Your task to perform on an android device: turn off smart reply in the gmail app Image 0: 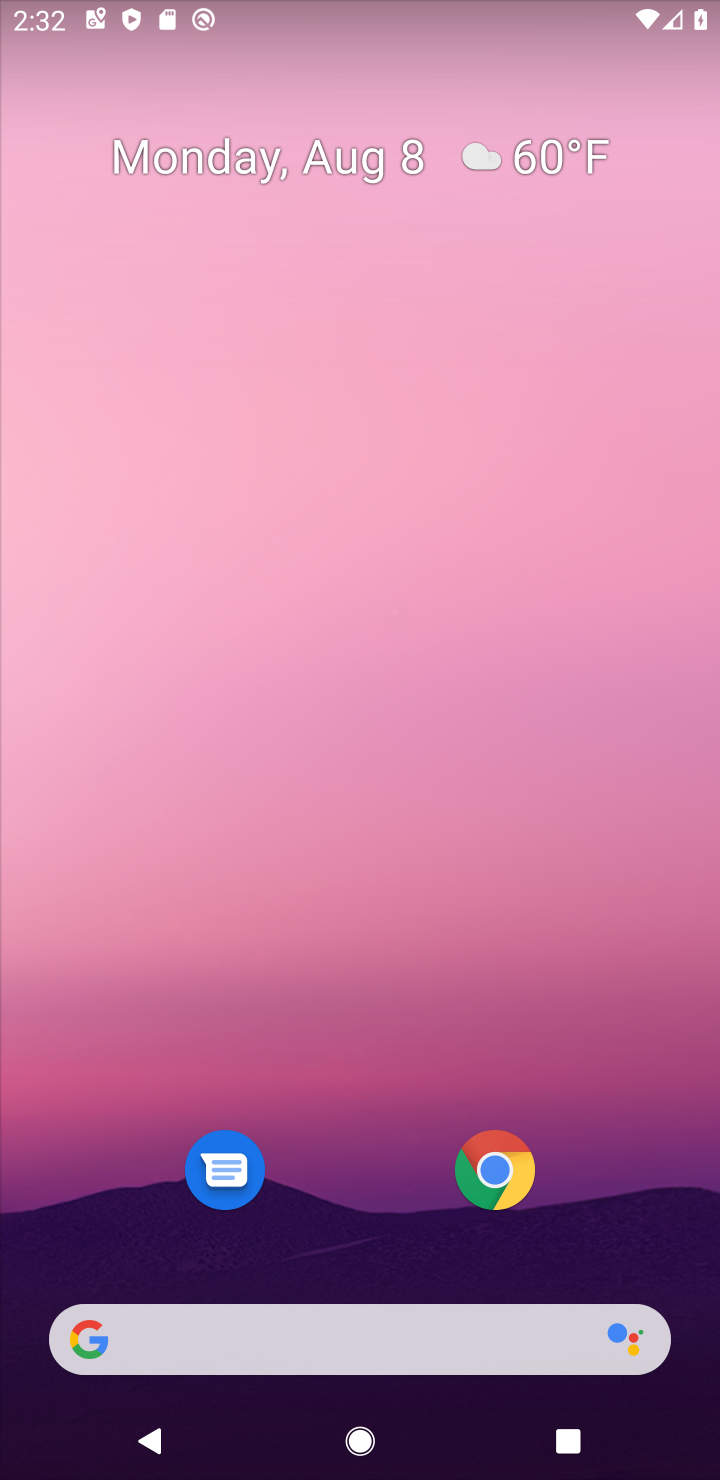
Step 0: drag from (369, 1086) to (366, 277)
Your task to perform on an android device: turn off smart reply in the gmail app Image 1: 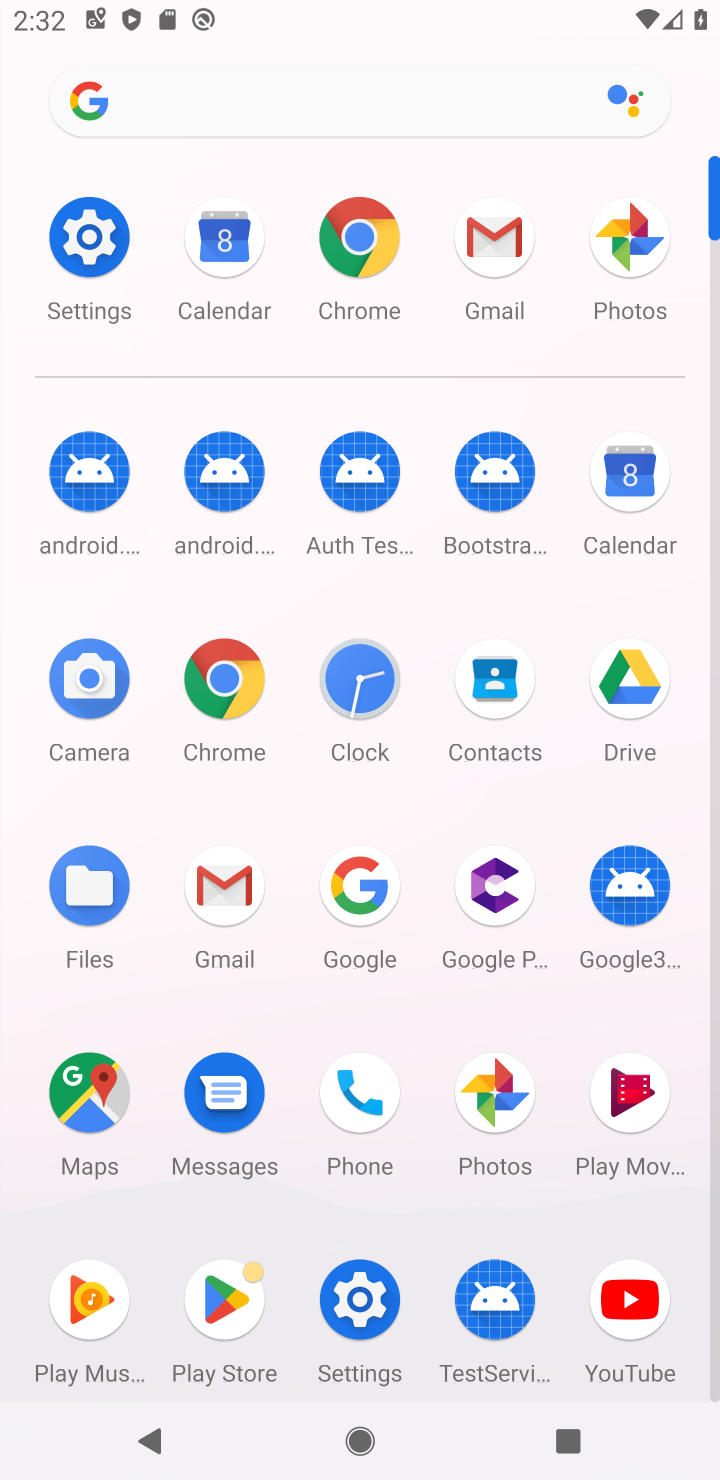
Step 1: click (474, 228)
Your task to perform on an android device: turn off smart reply in the gmail app Image 2: 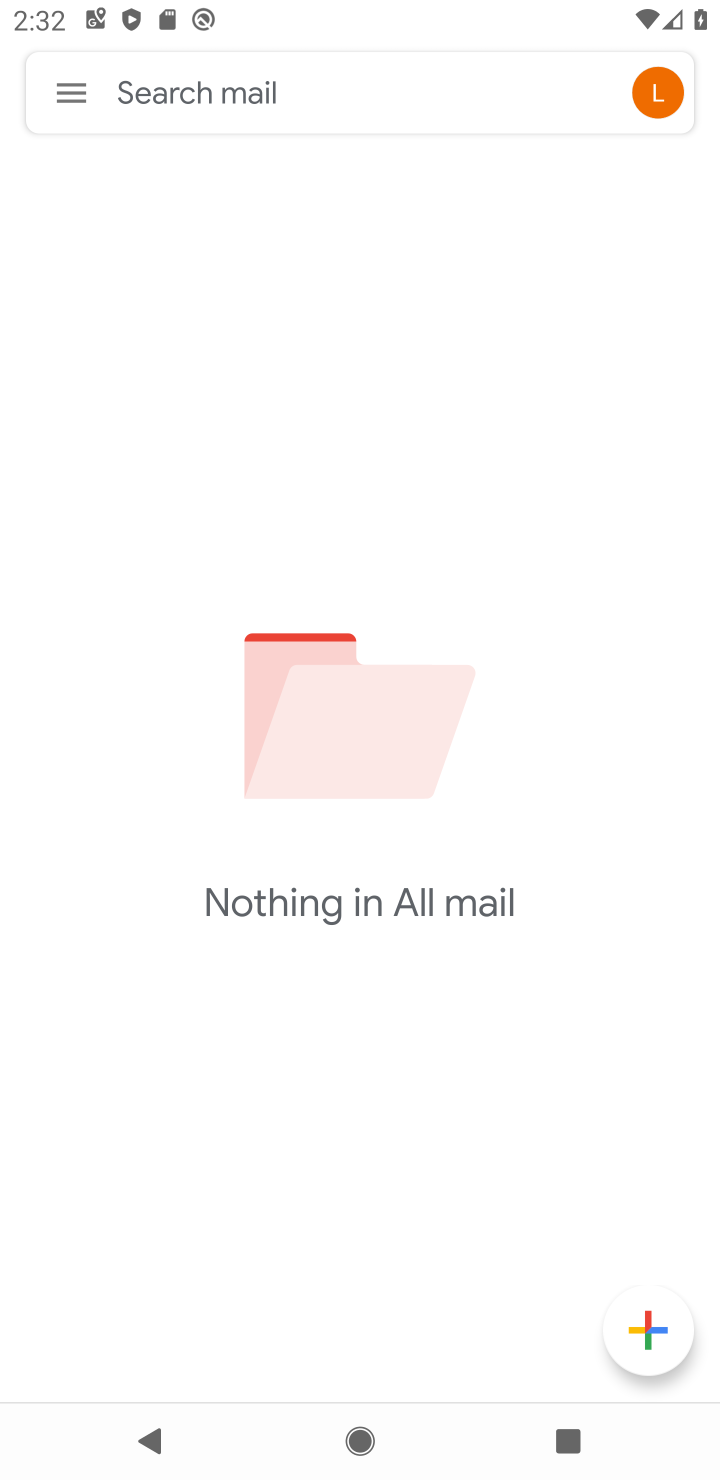
Step 2: click (68, 94)
Your task to perform on an android device: turn off smart reply in the gmail app Image 3: 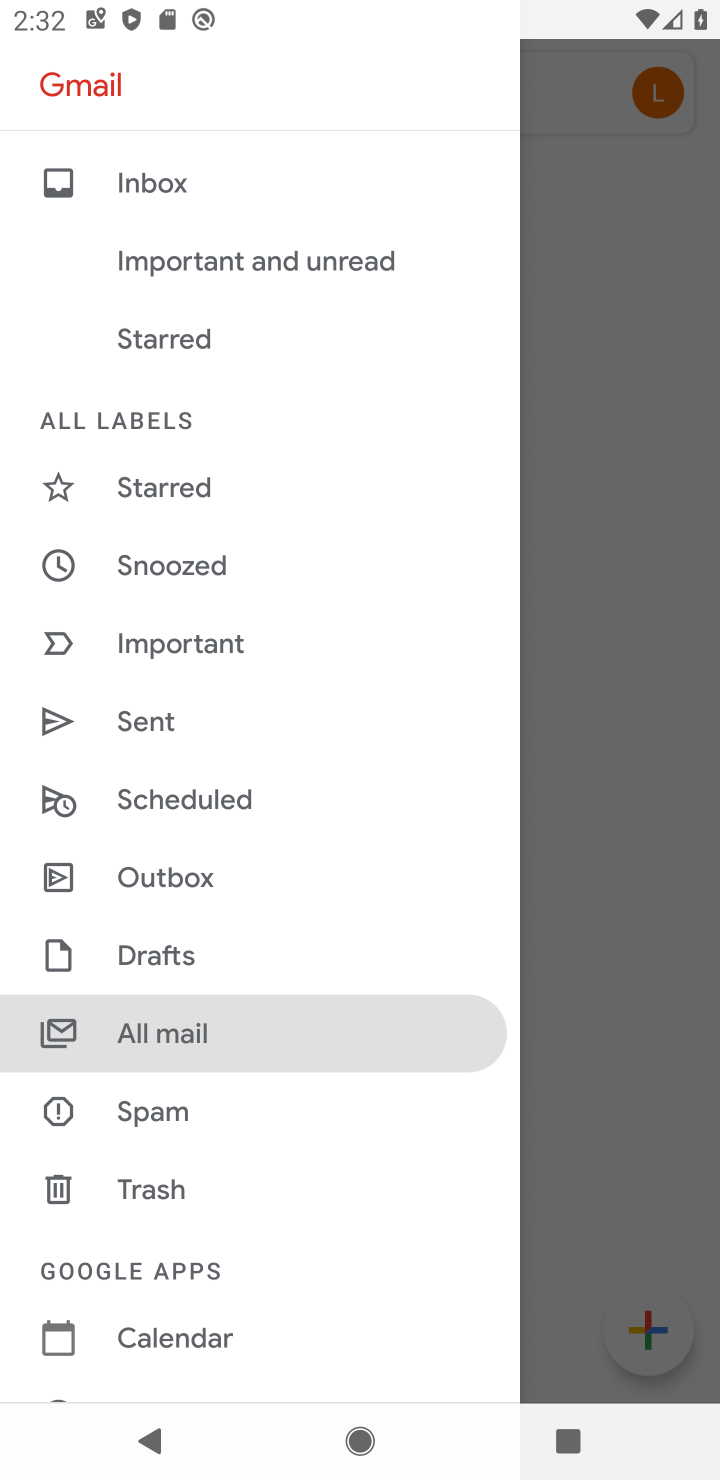
Step 3: drag from (293, 1231) to (315, 481)
Your task to perform on an android device: turn off smart reply in the gmail app Image 4: 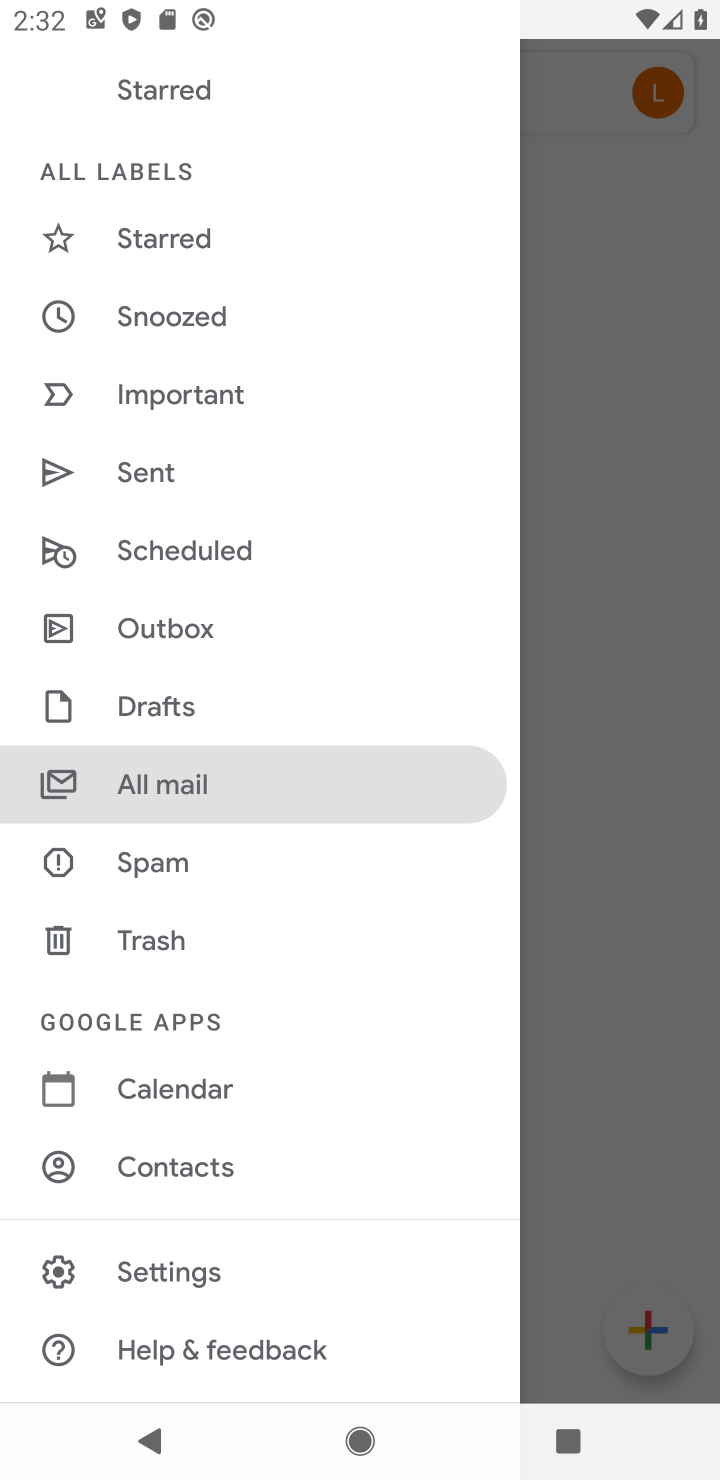
Step 4: click (190, 1288)
Your task to perform on an android device: turn off smart reply in the gmail app Image 5: 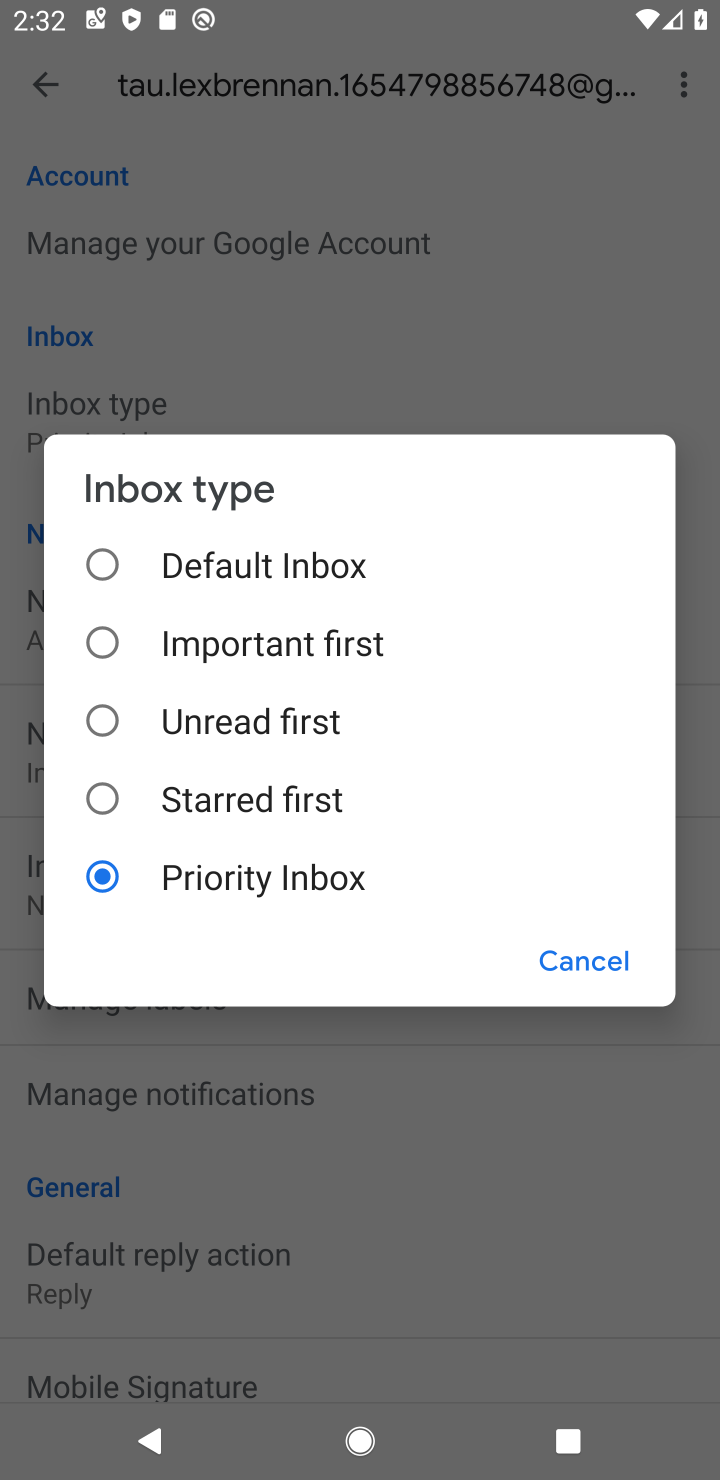
Step 5: click (605, 954)
Your task to perform on an android device: turn off smart reply in the gmail app Image 6: 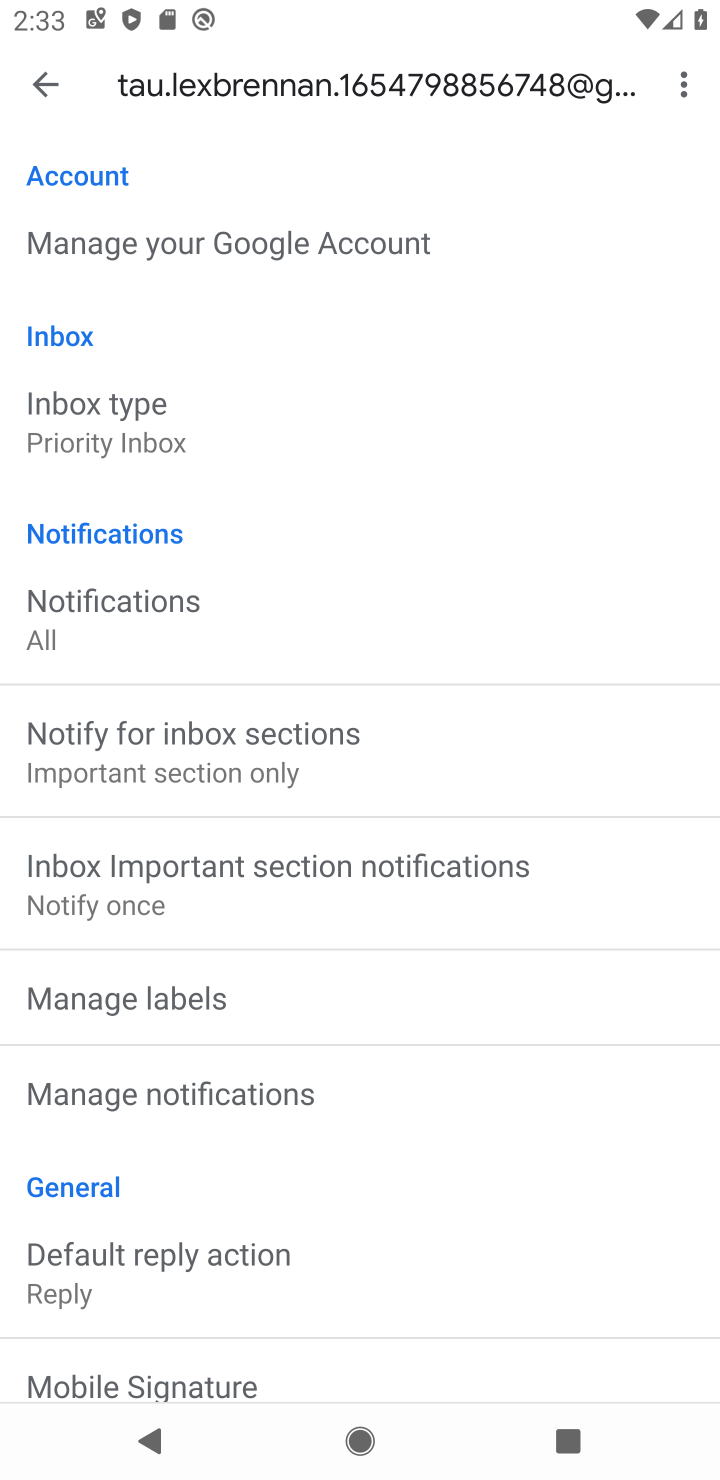
Step 6: drag from (313, 1163) to (336, 575)
Your task to perform on an android device: turn off smart reply in the gmail app Image 7: 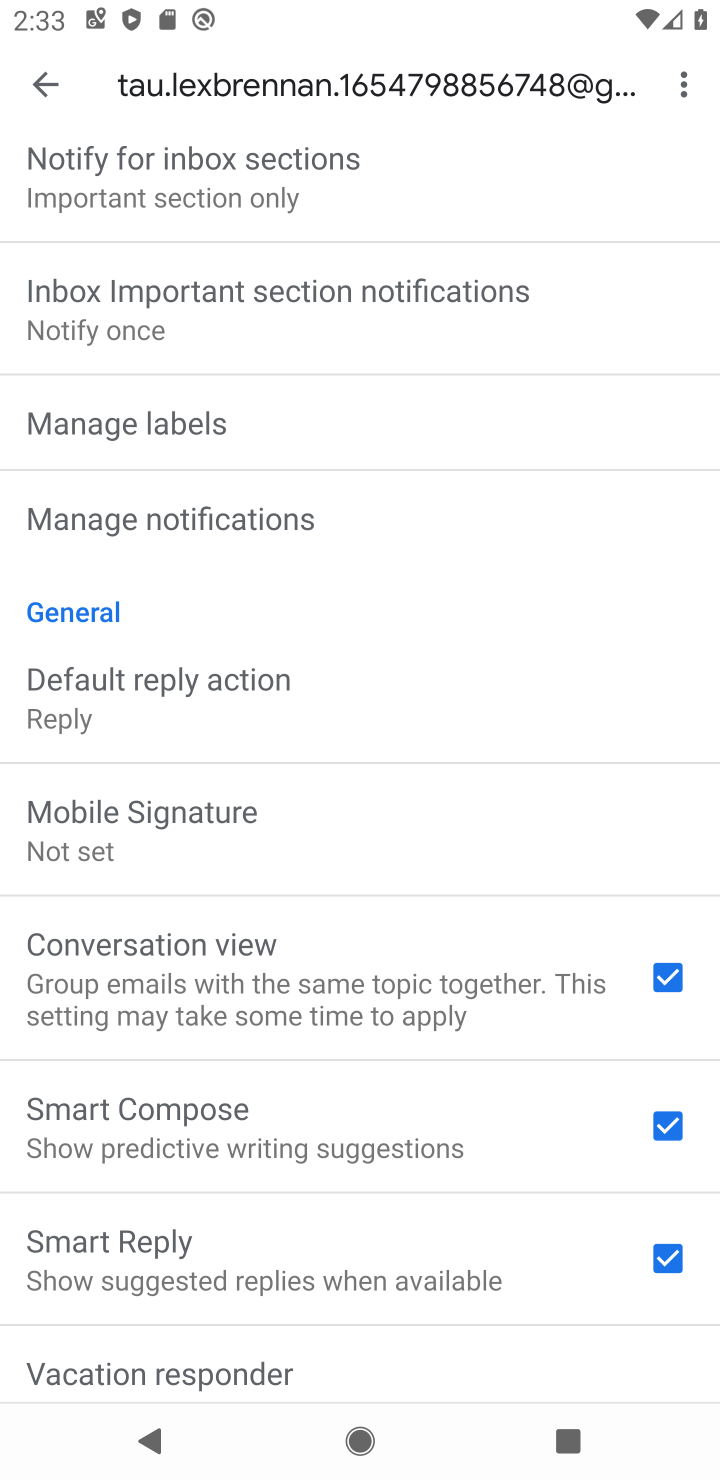
Step 7: click (656, 1260)
Your task to perform on an android device: turn off smart reply in the gmail app Image 8: 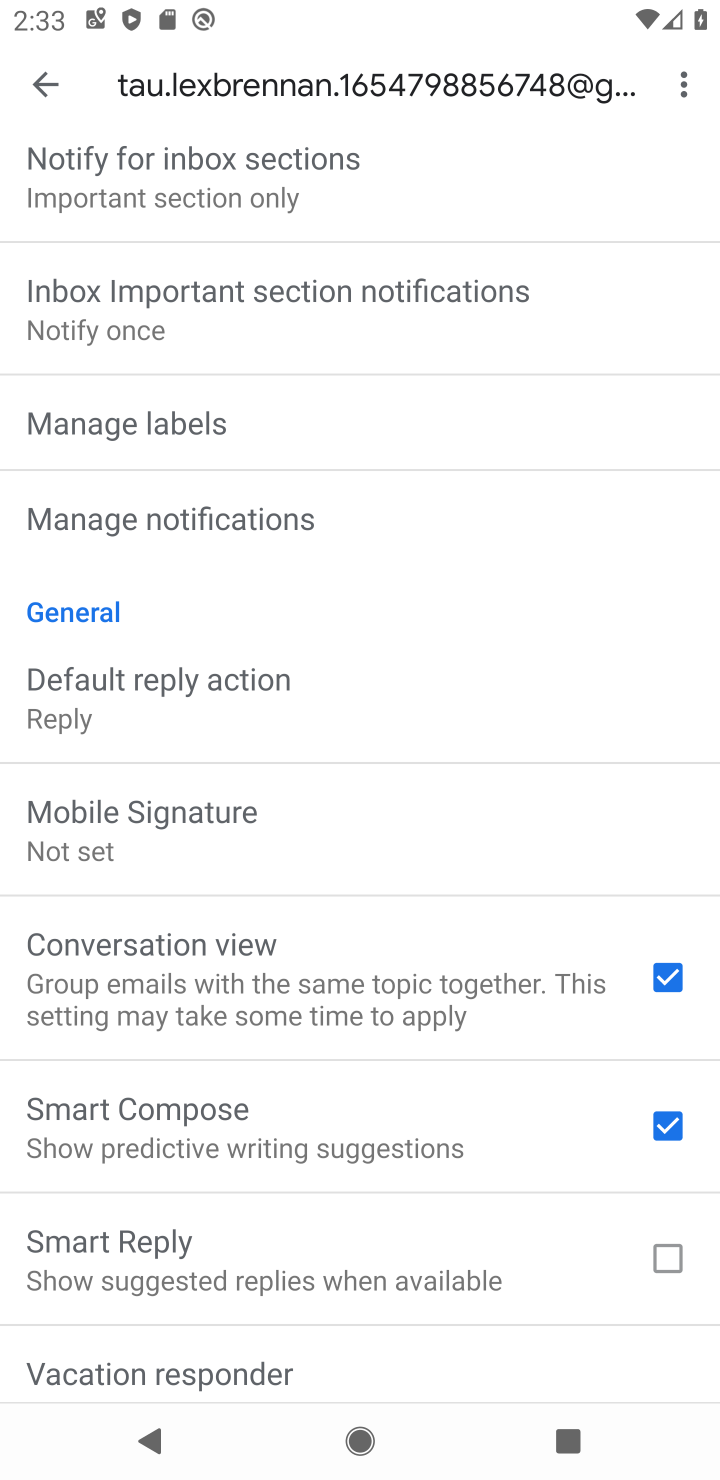
Step 8: task complete